Your task to perform on an android device: set the stopwatch Image 0: 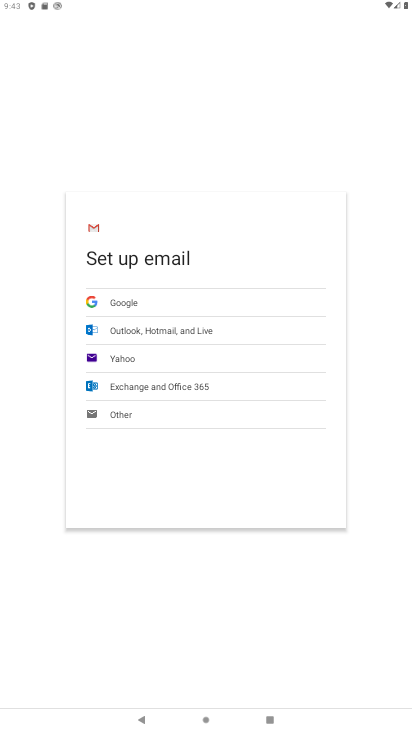
Step 0: press home button
Your task to perform on an android device: set the stopwatch Image 1: 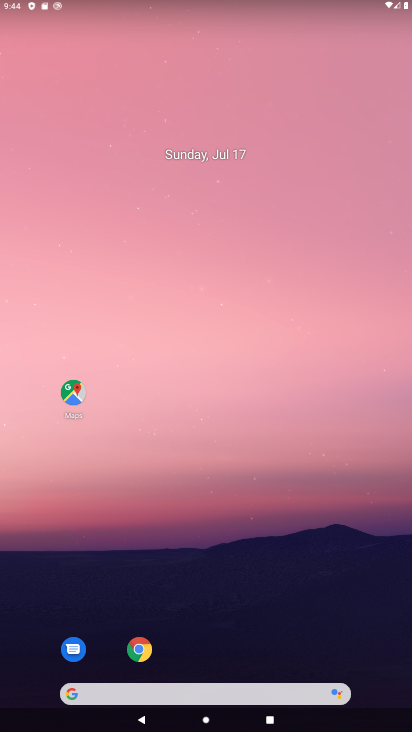
Step 1: drag from (45, 696) to (275, 109)
Your task to perform on an android device: set the stopwatch Image 2: 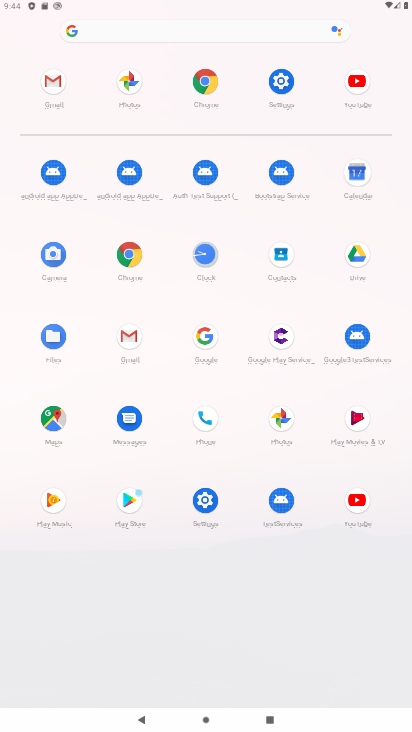
Step 2: click (210, 269)
Your task to perform on an android device: set the stopwatch Image 3: 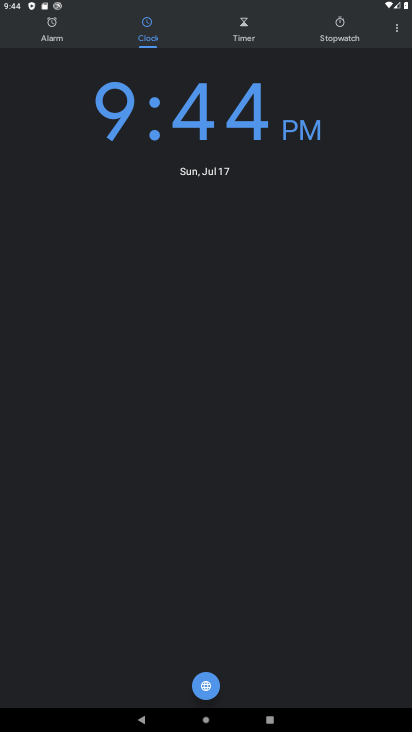
Step 3: click (325, 25)
Your task to perform on an android device: set the stopwatch Image 4: 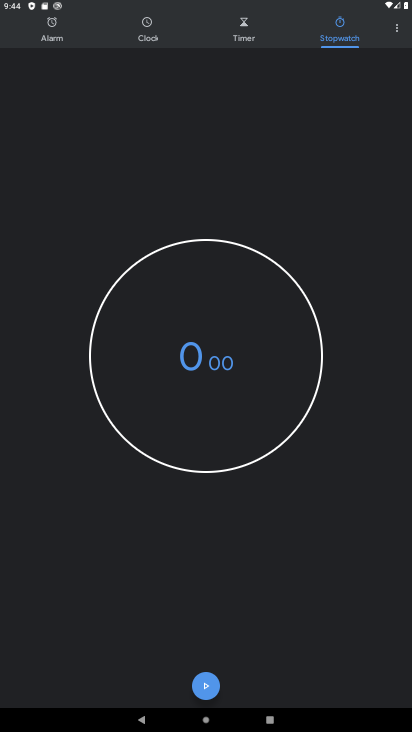
Step 4: task complete